Your task to perform on an android device: What is the capital of Brazil? Image 0: 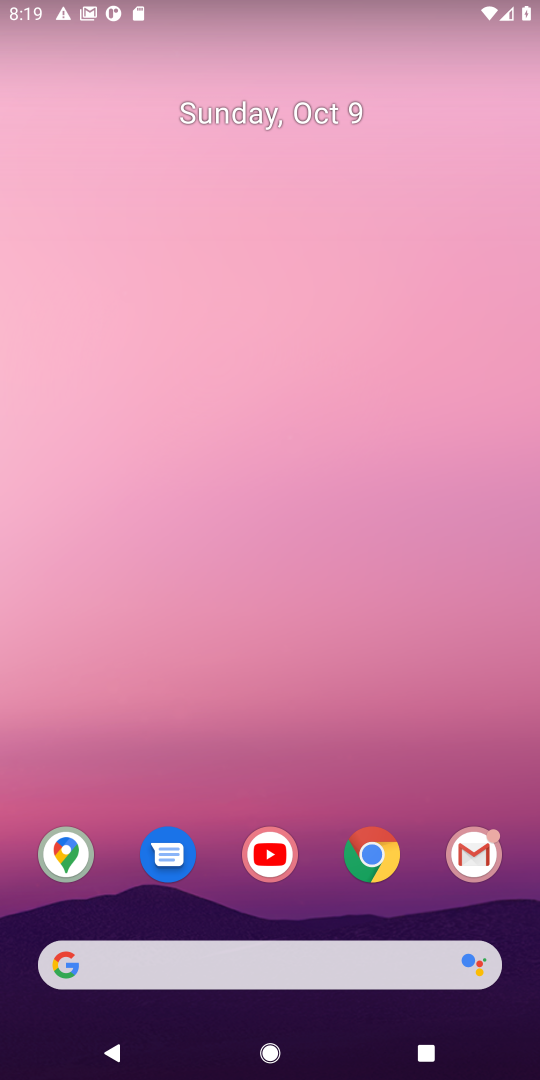
Step 0: drag from (290, 936) to (225, 191)
Your task to perform on an android device: What is the capital of Brazil? Image 1: 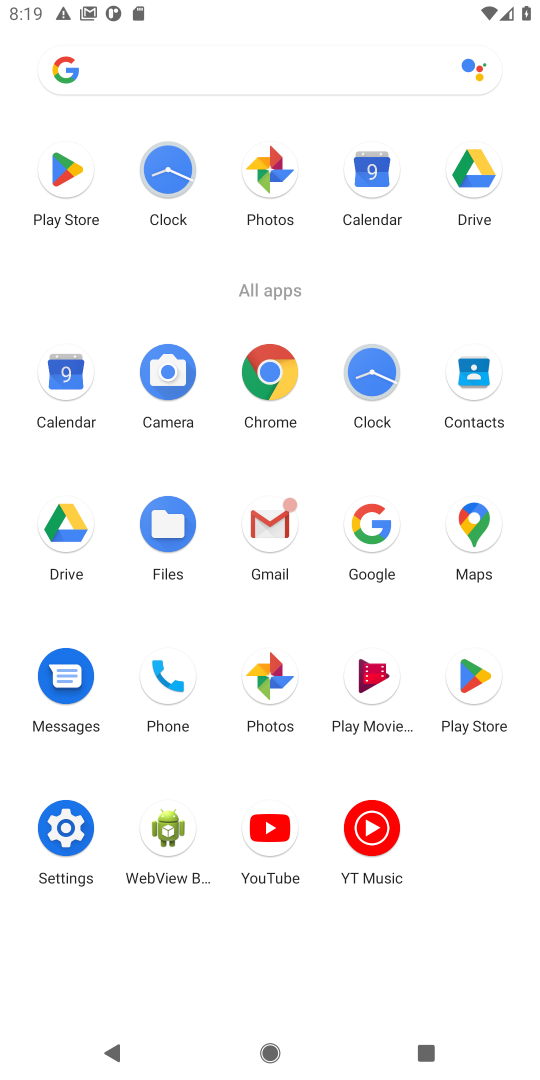
Step 1: click (272, 372)
Your task to perform on an android device: What is the capital of Brazil? Image 2: 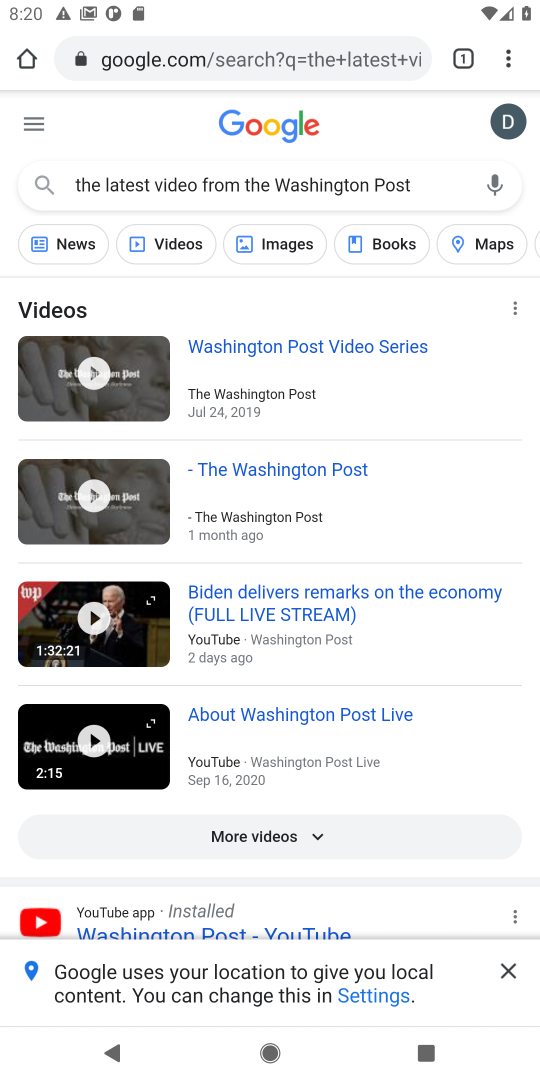
Step 2: click (443, 188)
Your task to perform on an android device: What is the capital of Brazil? Image 3: 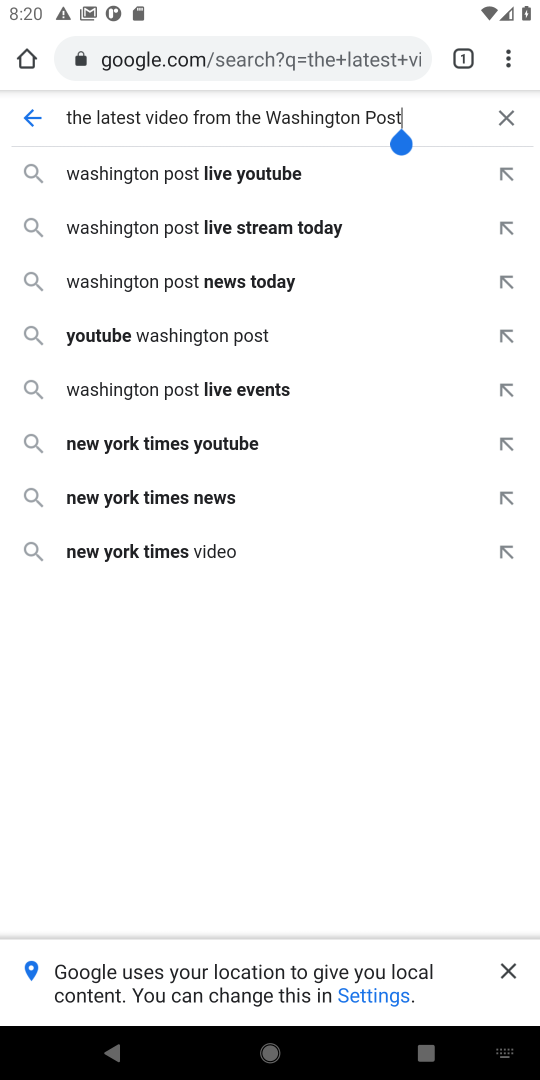
Step 3: click (502, 115)
Your task to perform on an android device: What is the capital of Brazil? Image 4: 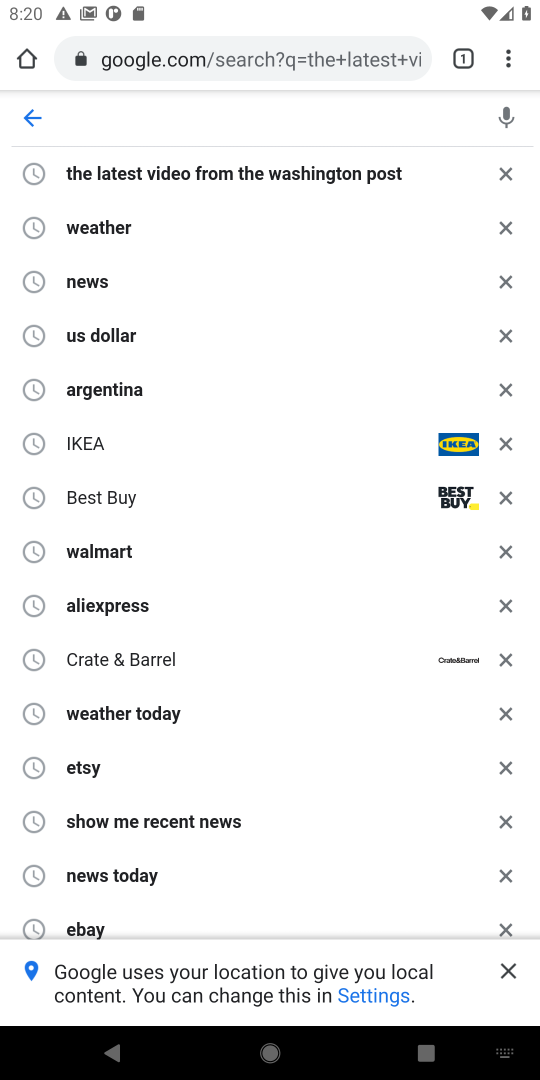
Step 4: type "What is the capital of Brazil?"
Your task to perform on an android device: What is the capital of Brazil? Image 5: 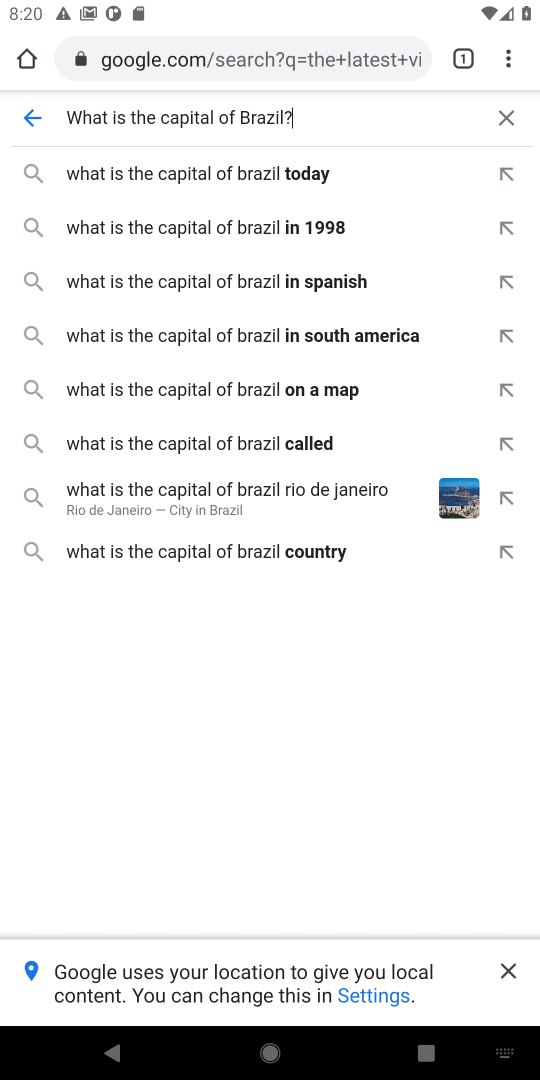
Step 5: type ""
Your task to perform on an android device: What is the capital of Brazil? Image 6: 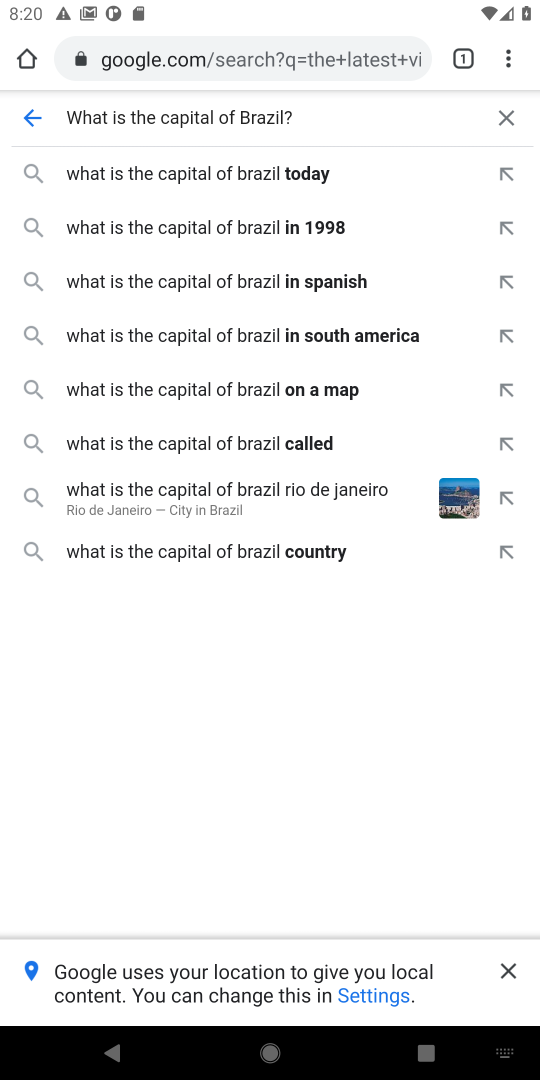
Step 6: type ""
Your task to perform on an android device: What is the capital of Brazil? Image 7: 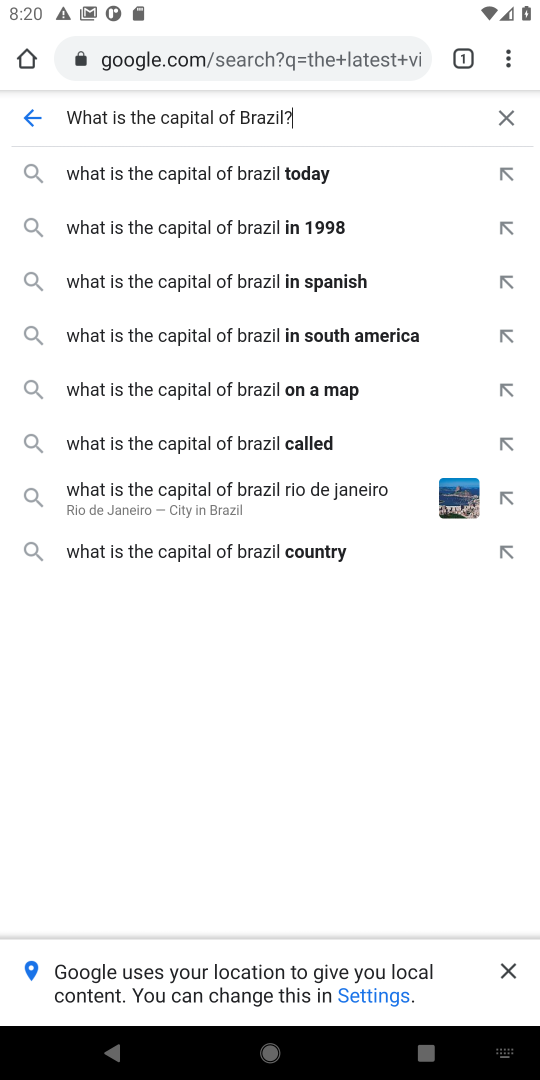
Step 7: click (180, 116)
Your task to perform on an android device: What is the capital of Brazil? Image 8: 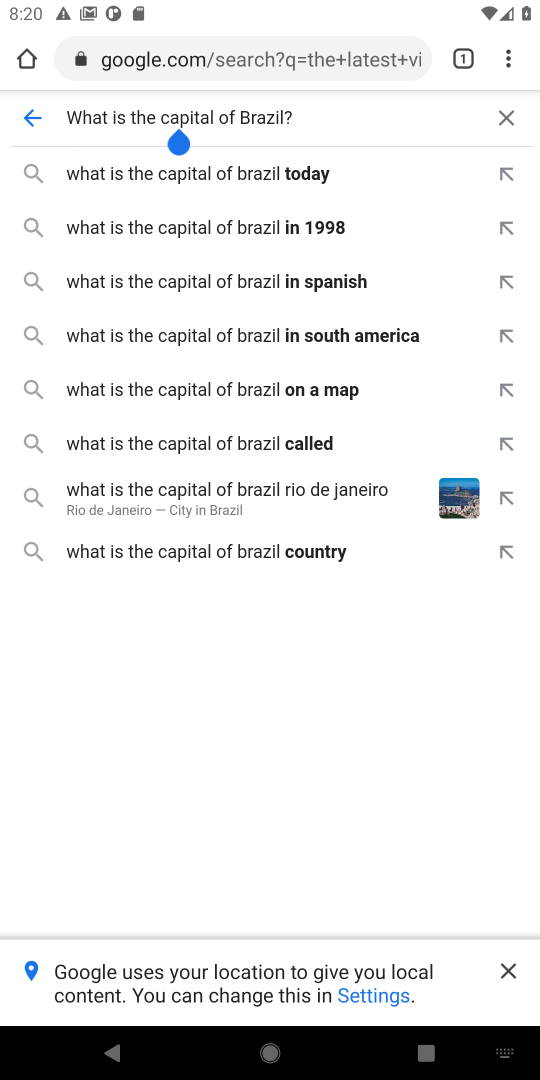
Step 8: click (145, 174)
Your task to perform on an android device: What is the capital of Brazil? Image 9: 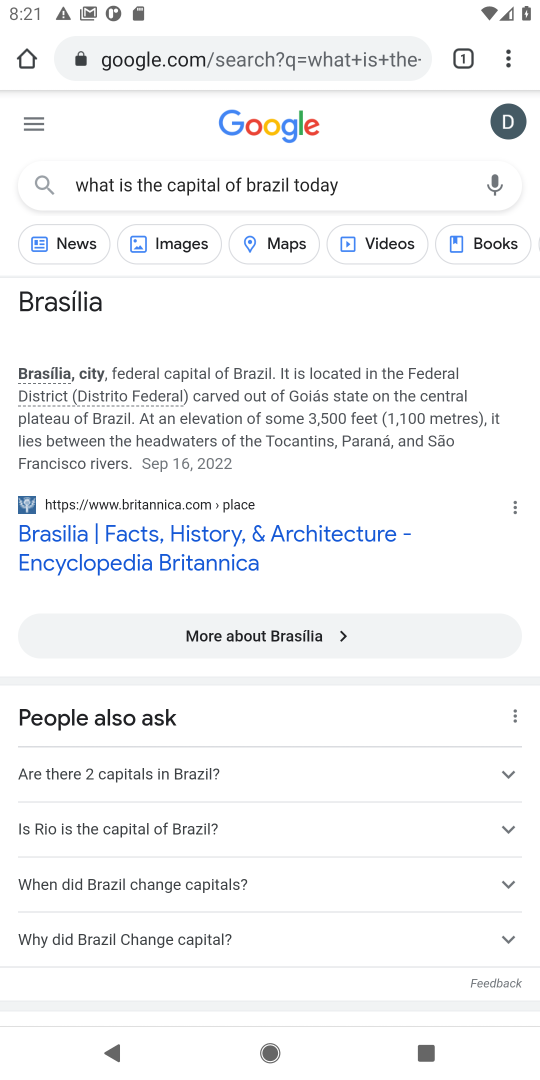
Step 9: task complete